Your task to perform on an android device: set the stopwatch Image 0: 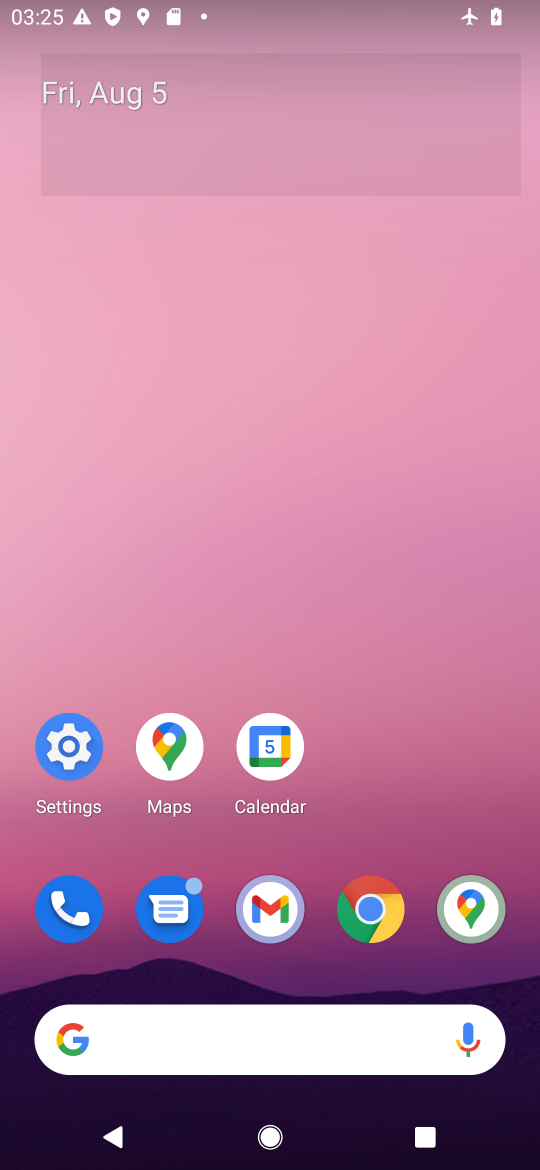
Step 0: drag from (399, 811) to (368, 122)
Your task to perform on an android device: set the stopwatch Image 1: 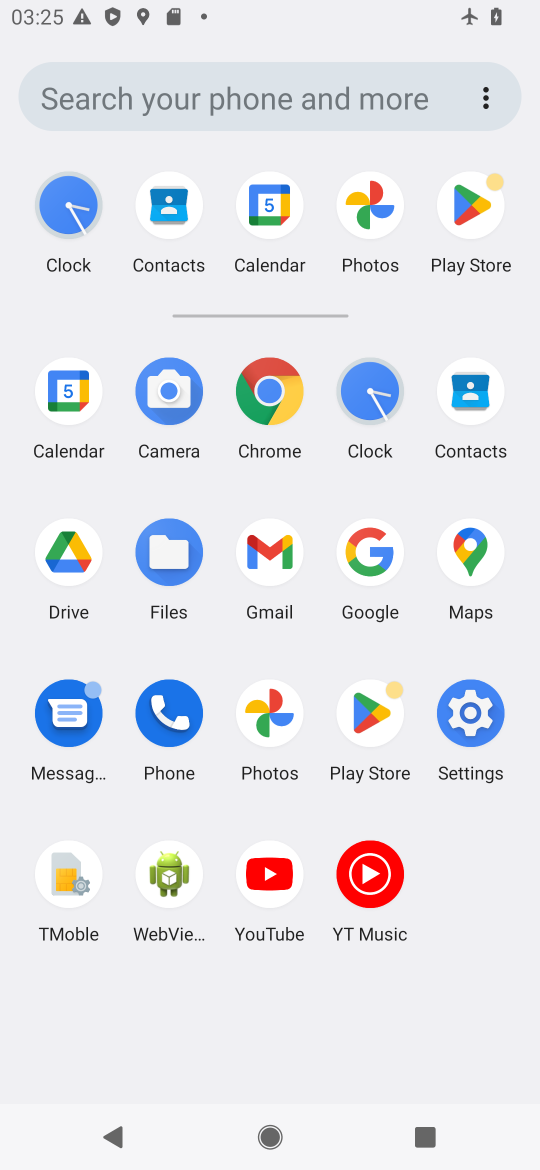
Step 1: click (370, 400)
Your task to perform on an android device: set the stopwatch Image 2: 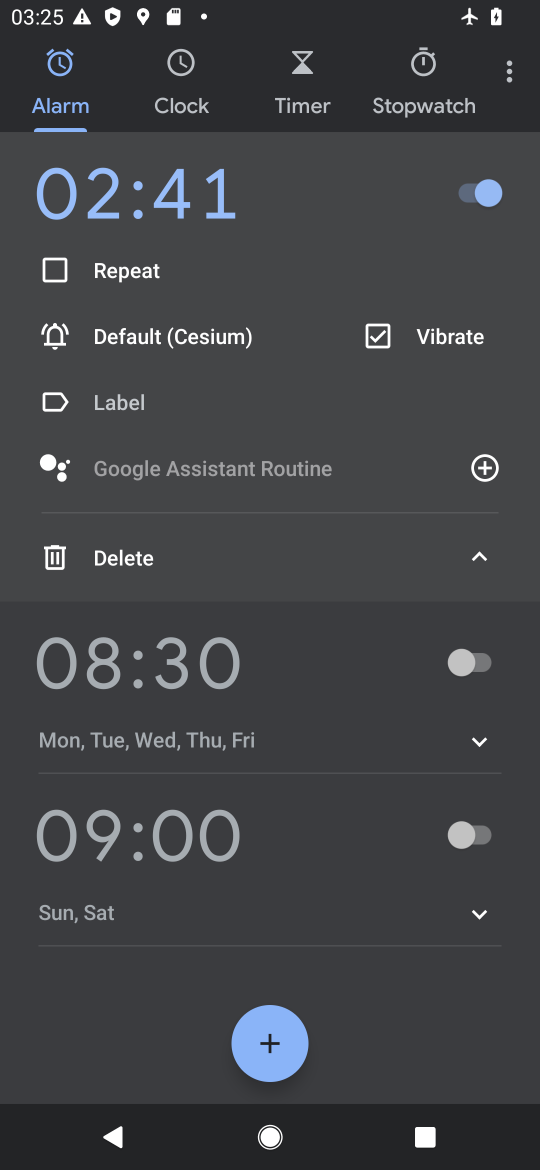
Step 2: click (421, 59)
Your task to perform on an android device: set the stopwatch Image 3: 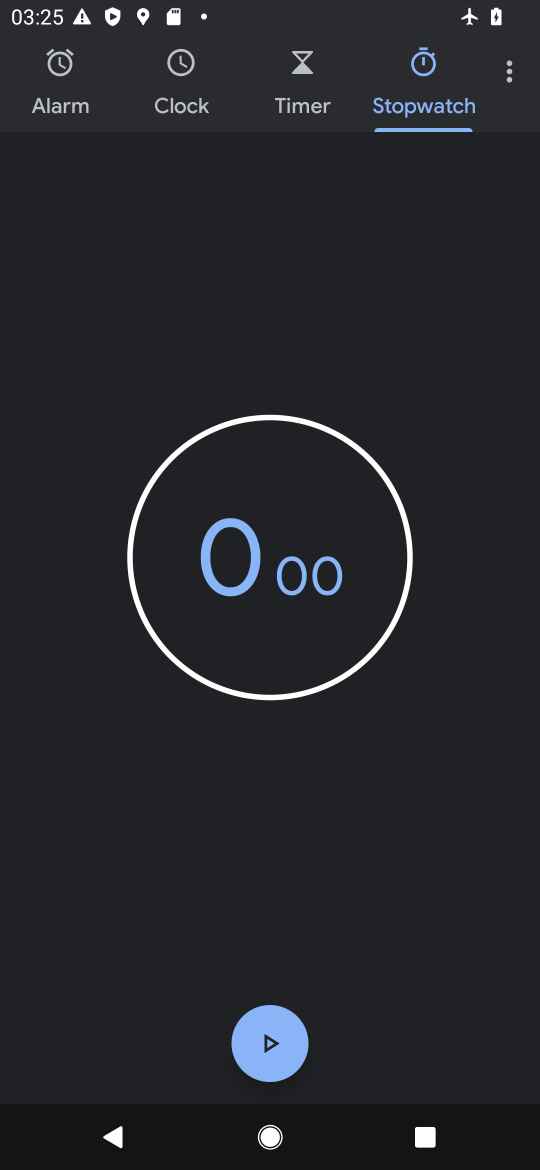
Step 3: task complete